Your task to perform on an android device: Show me productivity apps on the Play Store Image 0: 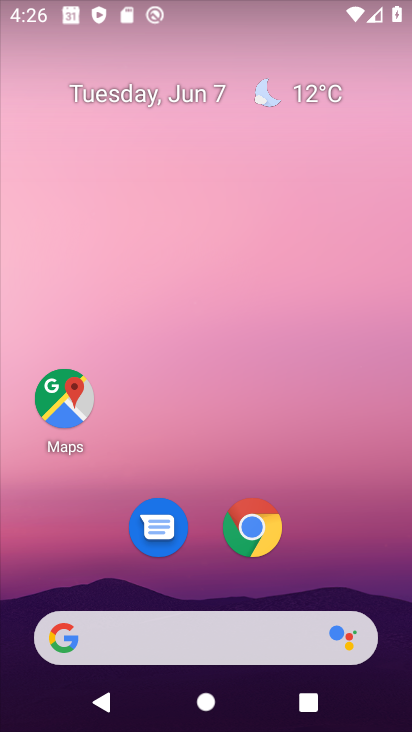
Step 0: drag from (348, 558) to (211, 6)
Your task to perform on an android device: Show me productivity apps on the Play Store Image 1: 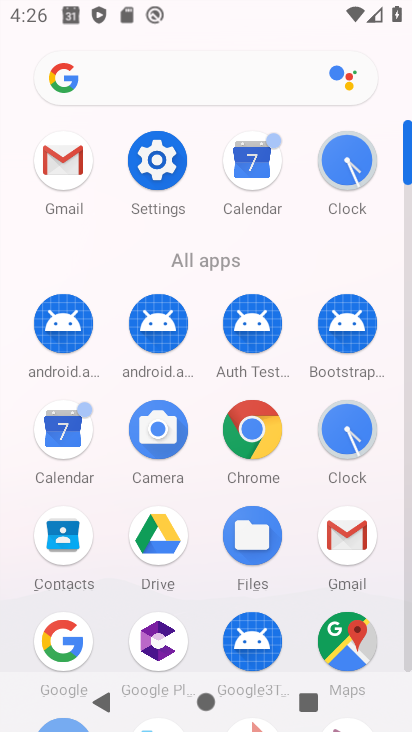
Step 1: drag from (305, 256) to (275, 46)
Your task to perform on an android device: Show me productivity apps on the Play Store Image 2: 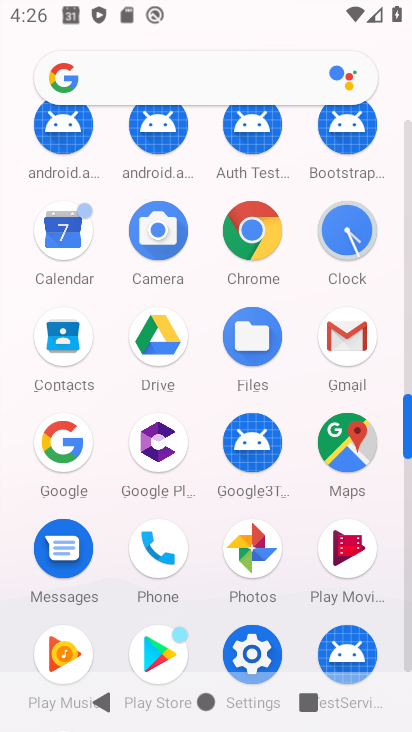
Step 2: drag from (201, 397) to (209, 194)
Your task to perform on an android device: Show me productivity apps on the Play Store Image 3: 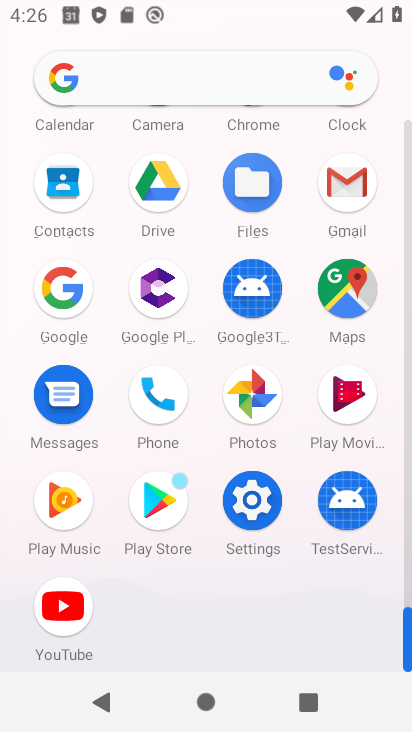
Step 3: click (158, 503)
Your task to perform on an android device: Show me productivity apps on the Play Store Image 4: 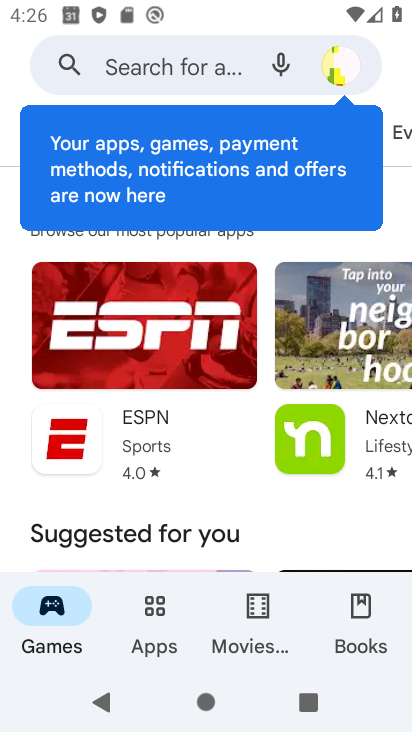
Step 4: click (154, 614)
Your task to perform on an android device: Show me productivity apps on the Play Store Image 5: 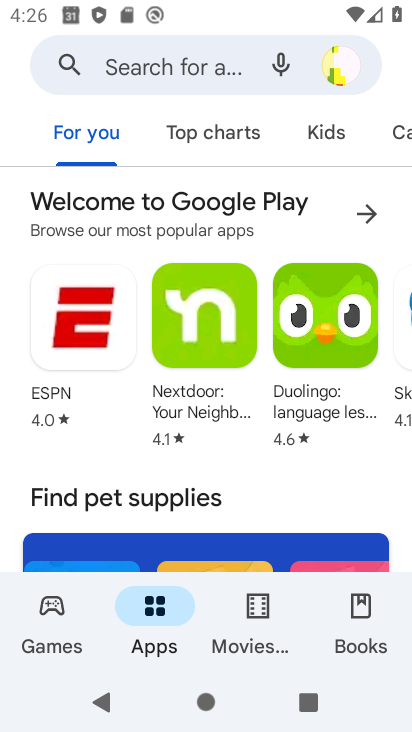
Step 5: drag from (350, 128) to (177, 127)
Your task to perform on an android device: Show me productivity apps on the Play Store Image 6: 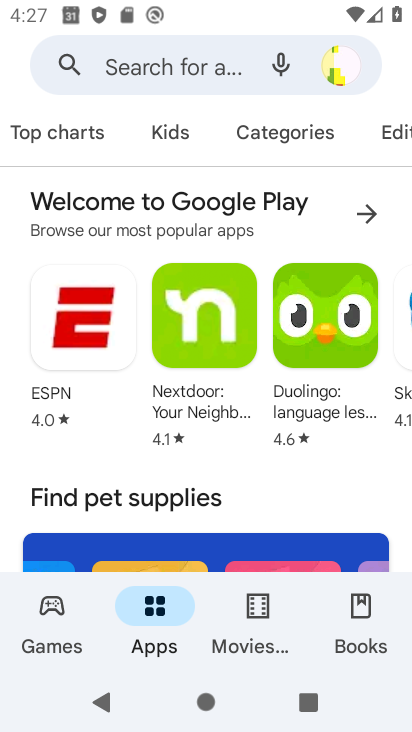
Step 6: click (308, 128)
Your task to perform on an android device: Show me productivity apps on the Play Store Image 7: 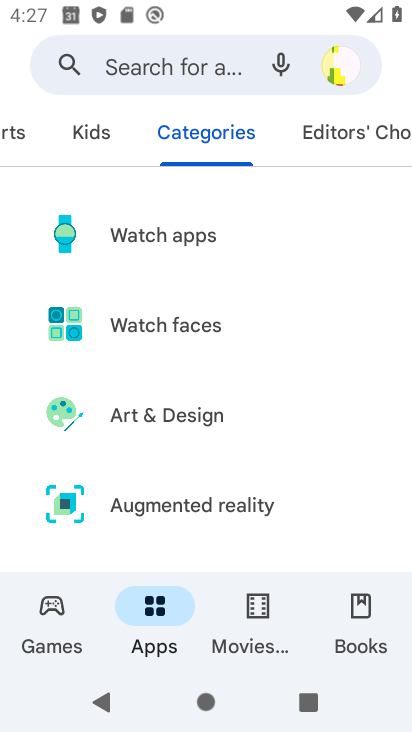
Step 7: drag from (173, 387) to (246, 16)
Your task to perform on an android device: Show me productivity apps on the Play Store Image 8: 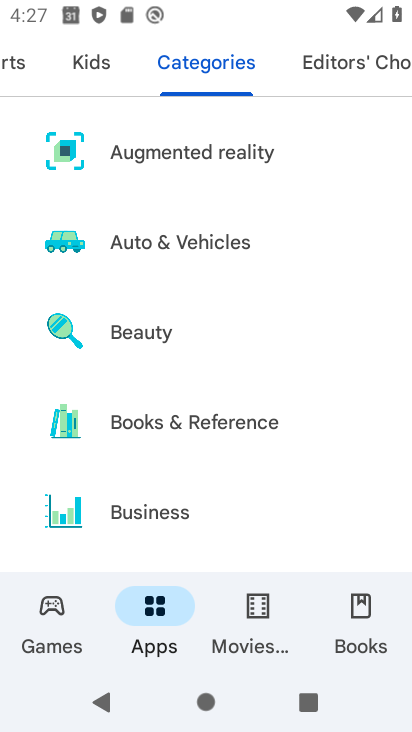
Step 8: drag from (165, 392) to (305, 131)
Your task to perform on an android device: Show me productivity apps on the Play Store Image 9: 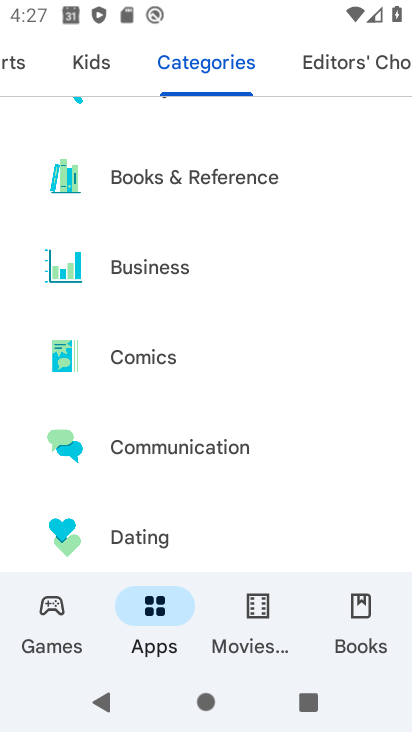
Step 9: drag from (133, 399) to (290, 155)
Your task to perform on an android device: Show me productivity apps on the Play Store Image 10: 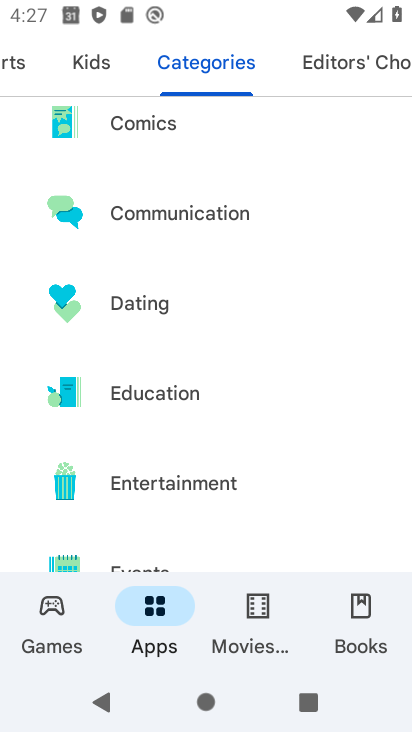
Step 10: drag from (130, 419) to (238, 189)
Your task to perform on an android device: Show me productivity apps on the Play Store Image 11: 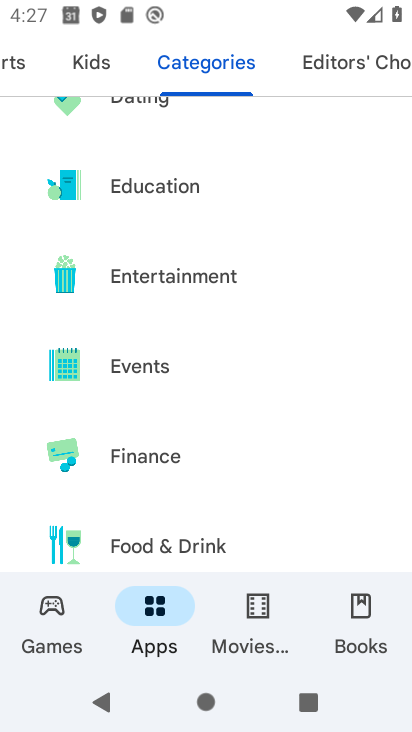
Step 11: drag from (125, 407) to (279, 171)
Your task to perform on an android device: Show me productivity apps on the Play Store Image 12: 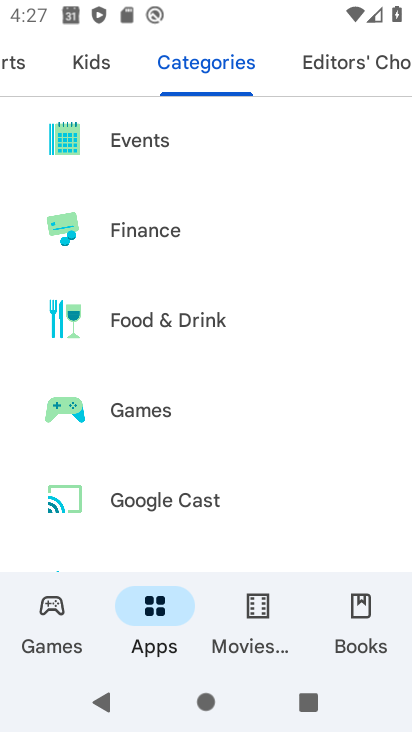
Step 12: drag from (128, 371) to (253, 154)
Your task to perform on an android device: Show me productivity apps on the Play Store Image 13: 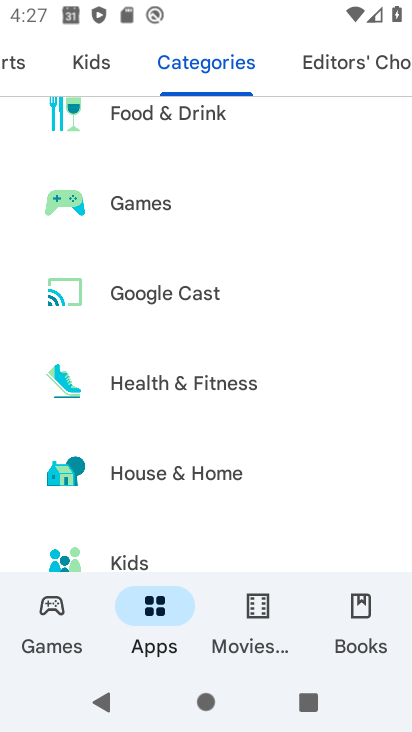
Step 13: drag from (135, 333) to (302, 134)
Your task to perform on an android device: Show me productivity apps on the Play Store Image 14: 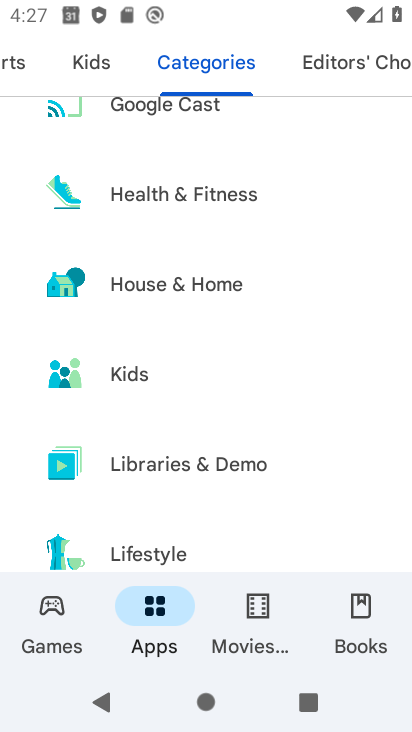
Step 14: drag from (148, 420) to (234, 299)
Your task to perform on an android device: Show me productivity apps on the Play Store Image 15: 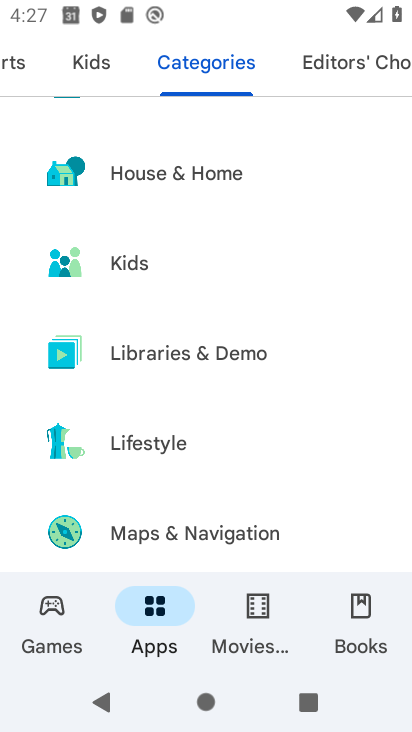
Step 15: drag from (166, 478) to (235, 363)
Your task to perform on an android device: Show me productivity apps on the Play Store Image 16: 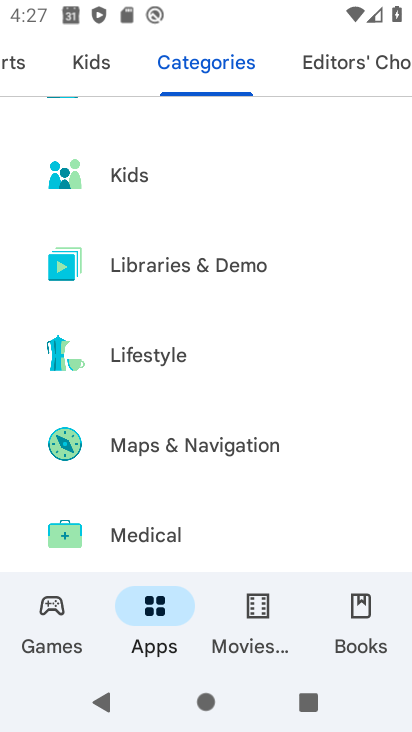
Step 16: drag from (137, 483) to (207, 385)
Your task to perform on an android device: Show me productivity apps on the Play Store Image 17: 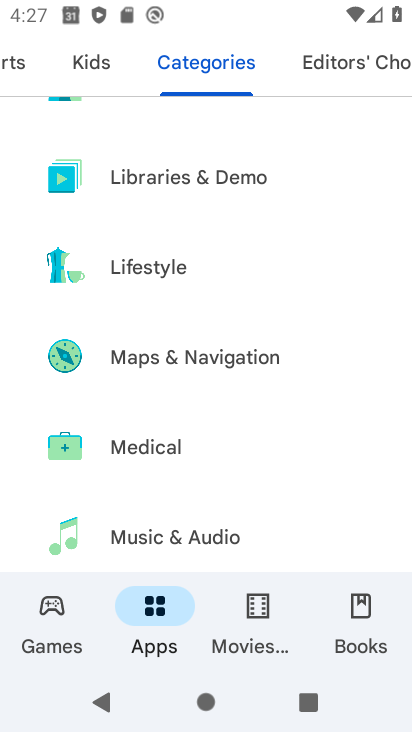
Step 17: drag from (140, 491) to (233, 349)
Your task to perform on an android device: Show me productivity apps on the Play Store Image 18: 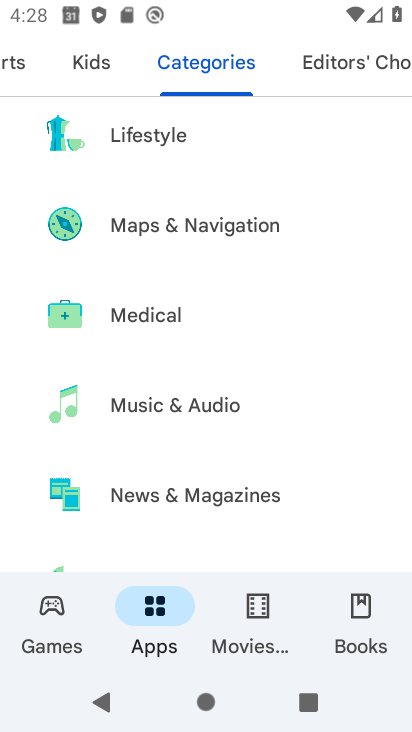
Step 18: drag from (147, 460) to (205, 347)
Your task to perform on an android device: Show me productivity apps on the Play Store Image 19: 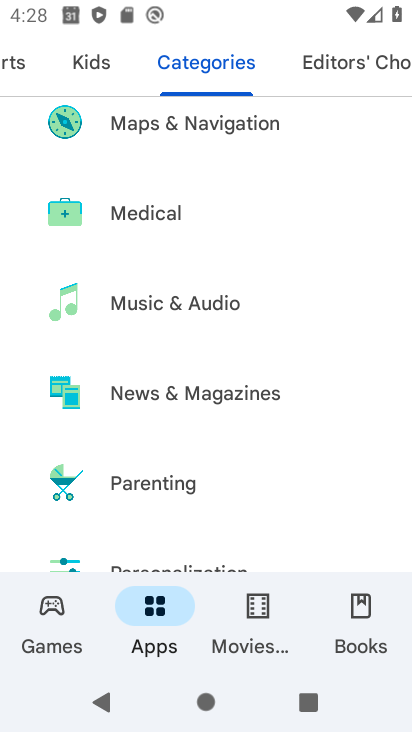
Step 19: drag from (151, 457) to (201, 224)
Your task to perform on an android device: Show me productivity apps on the Play Store Image 20: 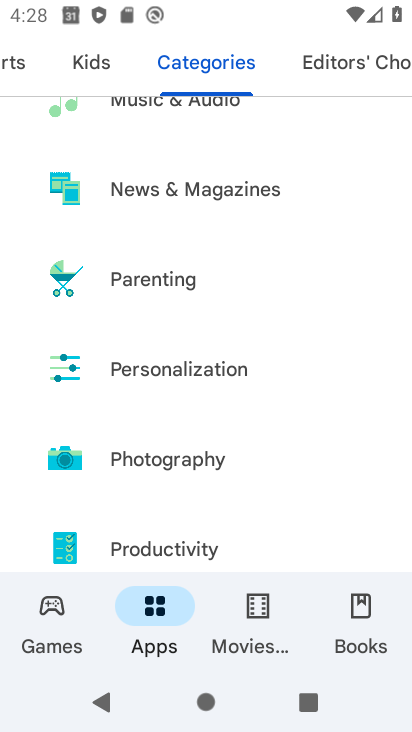
Step 20: drag from (140, 508) to (244, 364)
Your task to perform on an android device: Show me productivity apps on the Play Store Image 21: 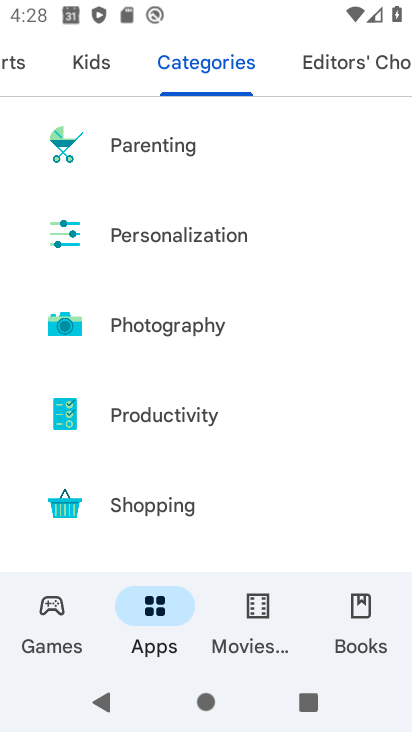
Step 21: click (186, 418)
Your task to perform on an android device: Show me productivity apps on the Play Store Image 22: 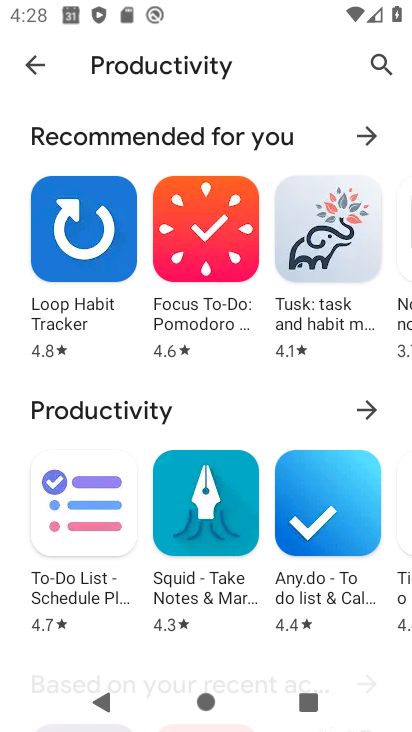
Step 22: task complete